Your task to perform on an android device: turn smart compose on in the gmail app Image 0: 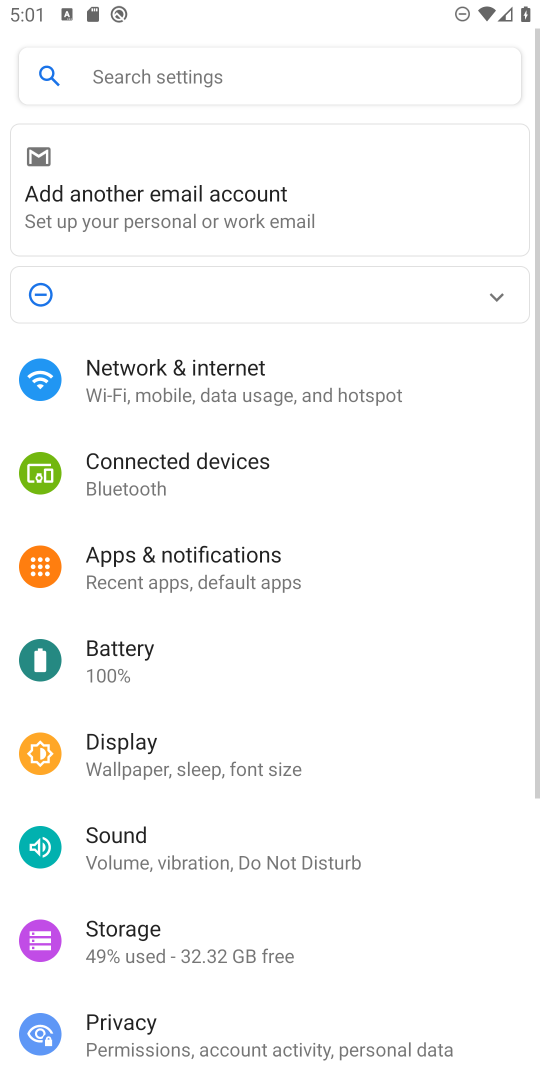
Step 0: press home button
Your task to perform on an android device: turn smart compose on in the gmail app Image 1: 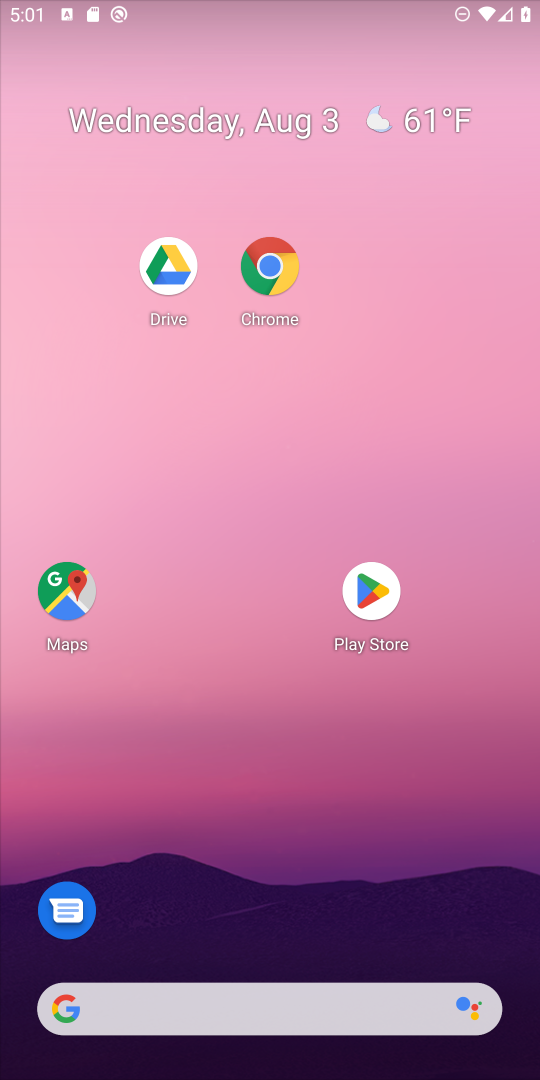
Step 1: drag from (299, 1024) to (414, 7)
Your task to perform on an android device: turn smart compose on in the gmail app Image 2: 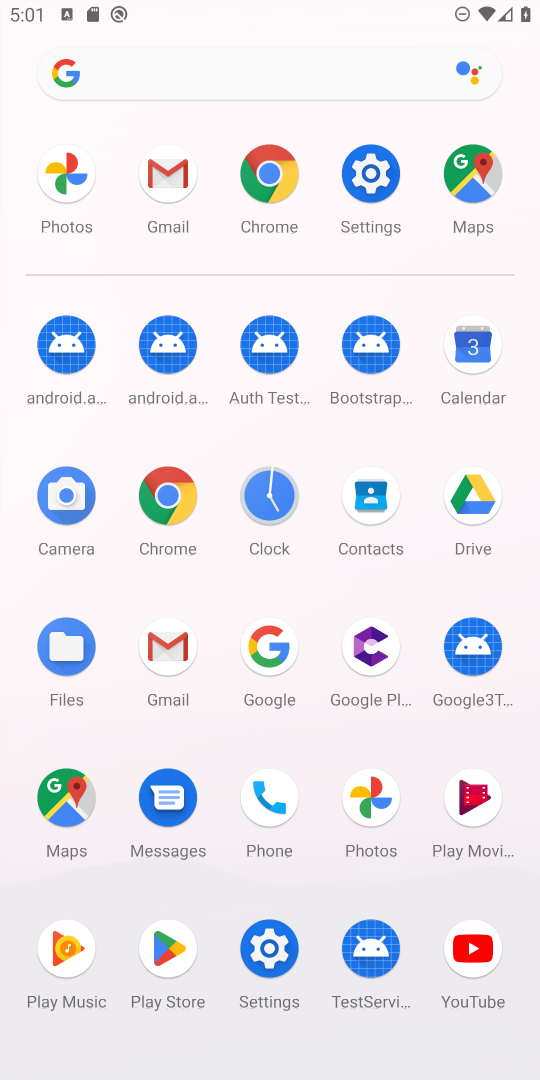
Step 2: click (169, 640)
Your task to perform on an android device: turn smart compose on in the gmail app Image 3: 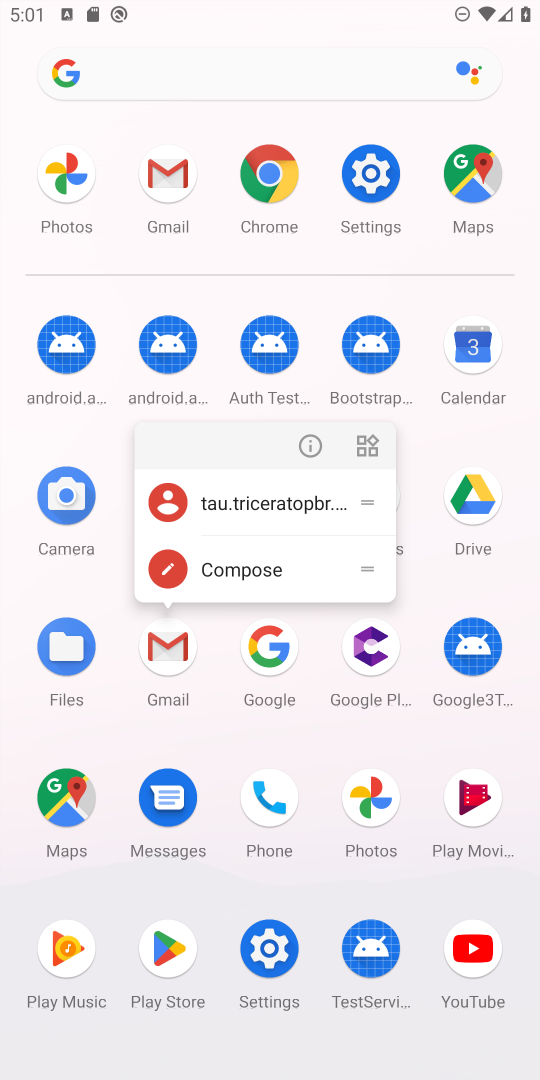
Step 3: click (175, 636)
Your task to perform on an android device: turn smart compose on in the gmail app Image 4: 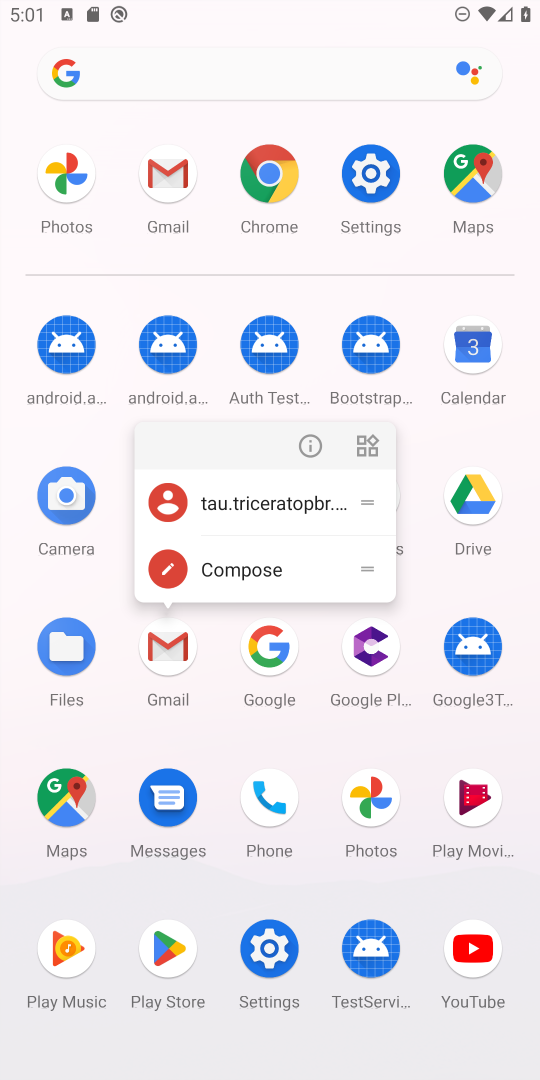
Step 4: click (174, 637)
Your task to perform on an android device: turn smart compose on in the gmail app Image 5: 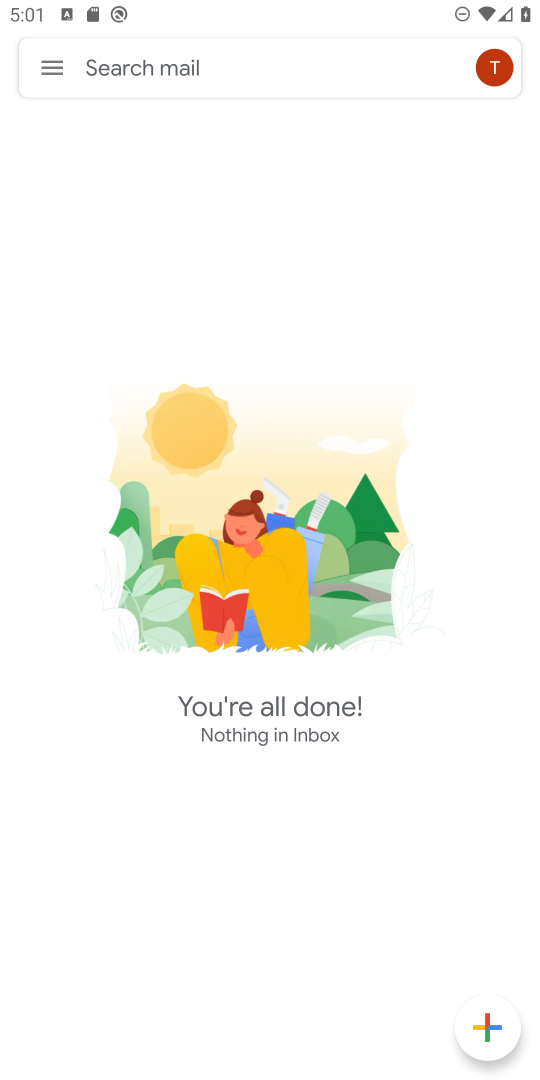
Step 5: click (49, 59)
Your task to perform on an android device: turn smart compose on in the gmail app Image 6: 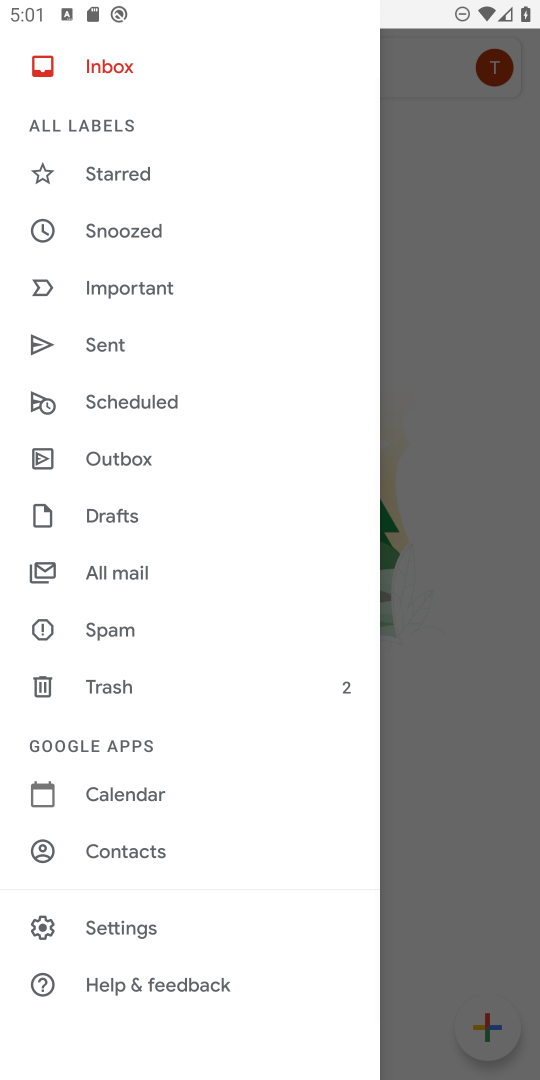
Step 6: click (163, 914)
Your task to perform on an android device: turn smart compose on in the gmail app Image 7: 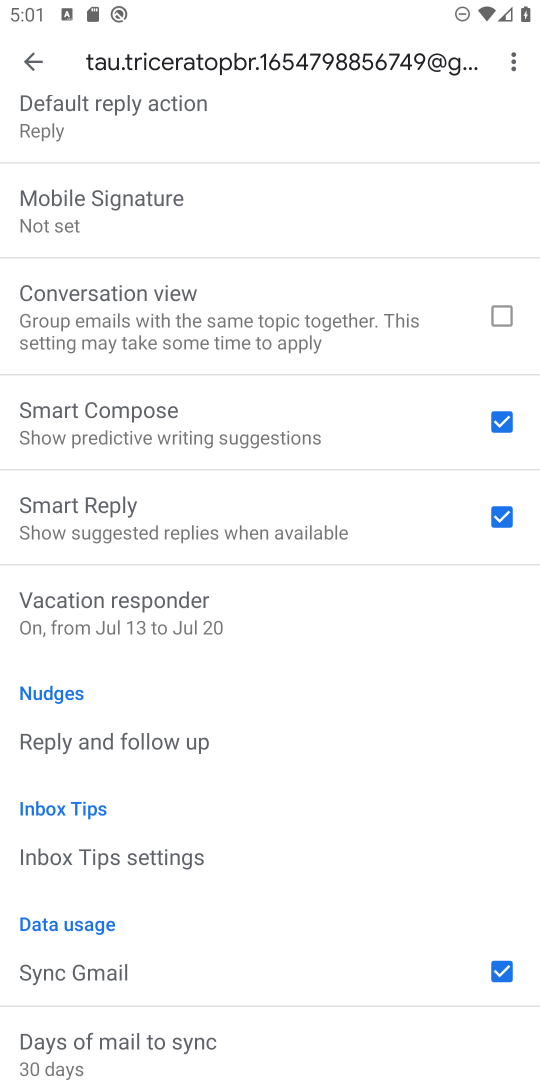
Step 7: task complete